Your task to perform on an android device: Open eBay Image 0: 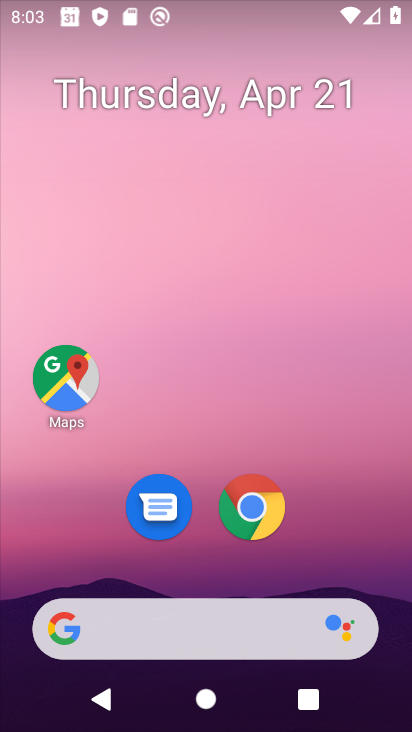
Step 0: click (246, 519)
Your task to perform on an android device: Open eBay Image 1: 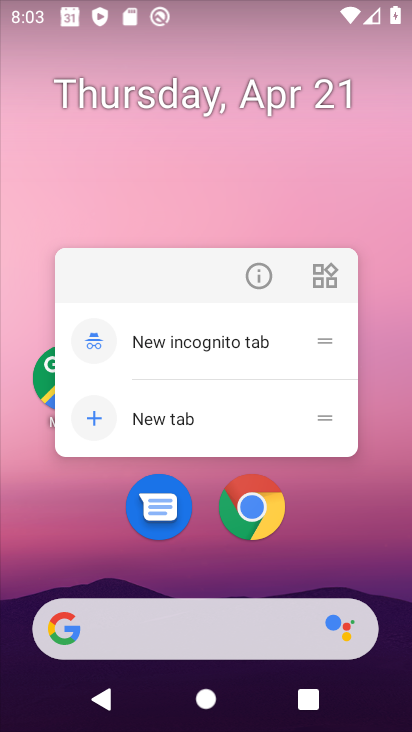
Step 1: click (257, 506)
Your task to perform on an android device: Open eBay Image 2: 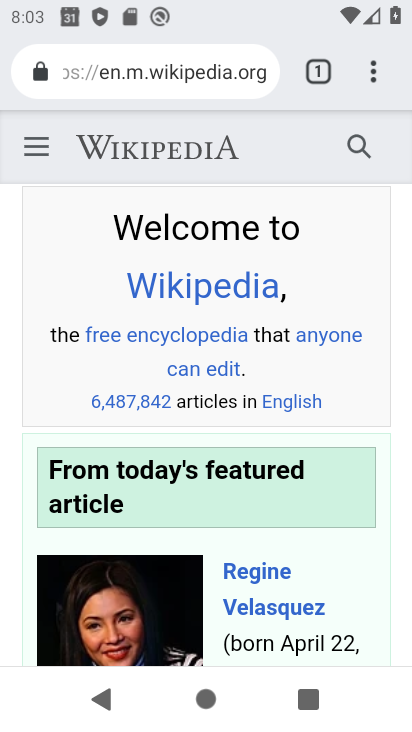
Step 2: click (323, 78)
Your task to perform on an android device: Open eBay Image 3: 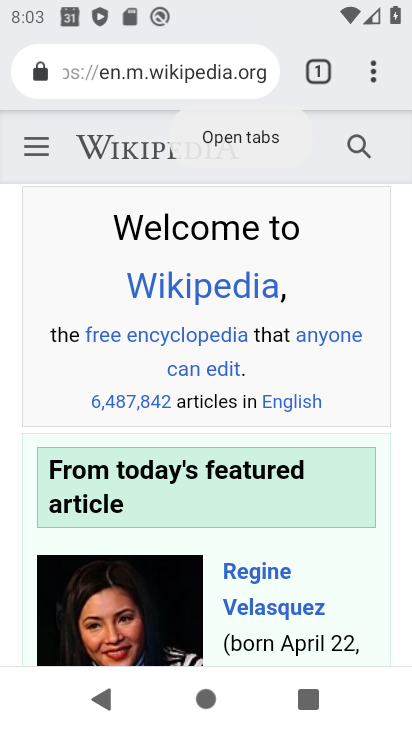
Step 3: click (320, 54)
Your task to perform on an android device: Open eBay Image 4: 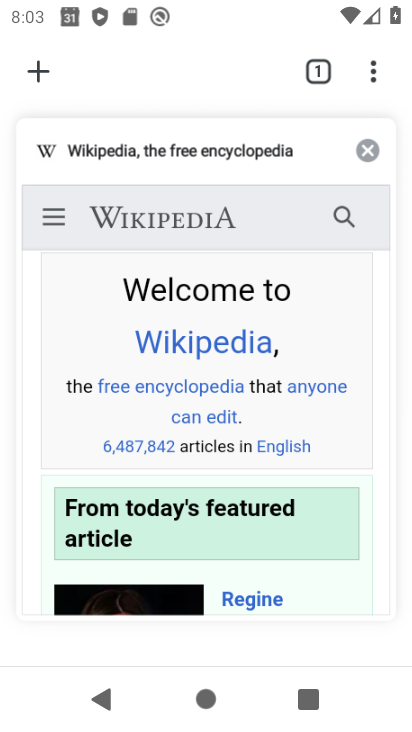
Step 4: click (41, 67)
Your task to perform on an android device: Open eBay Image 5: 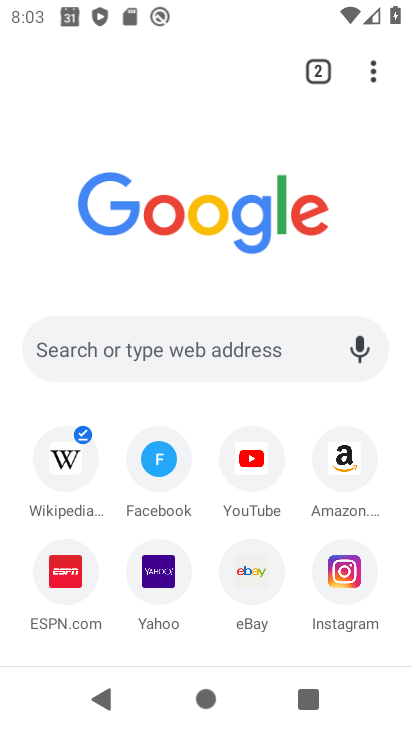
Step 5: click (140, 345)
Your task to perform on an android device: Open eBay Image 6: 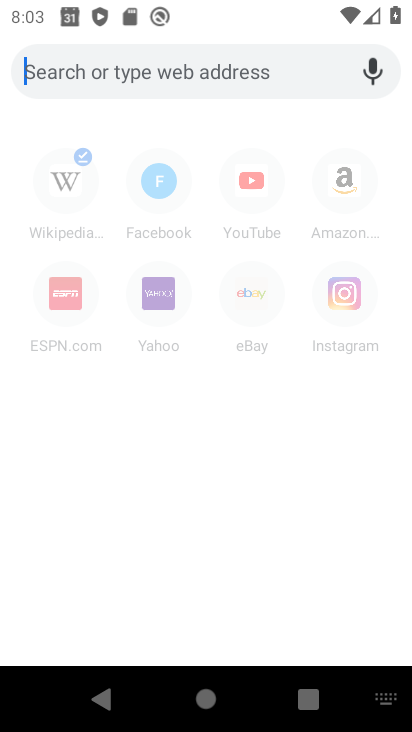
Step 6: type "ebay"
Your task to perform on an android device: Open eBay Image 7: 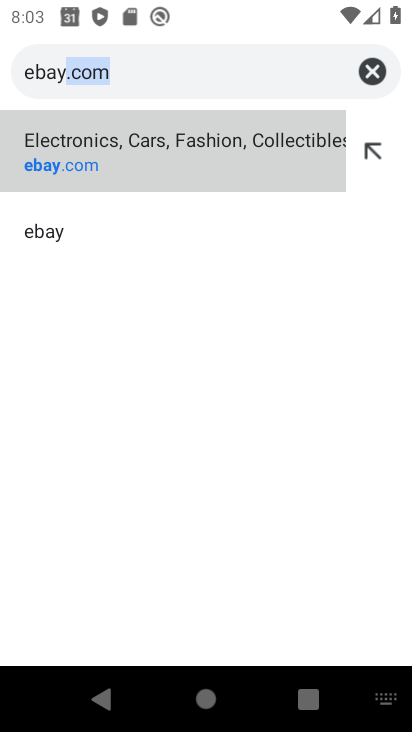
Step 7: click (166, 163)
Your task to perform on an android device: Open eBay Image 8: 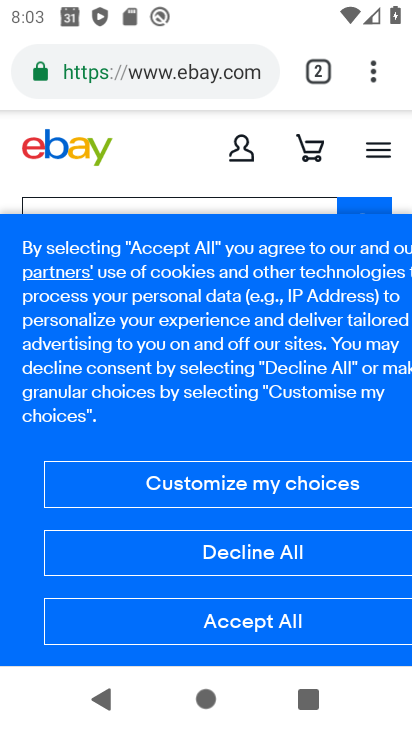
Step 8: task complete